Your task to perform on an android device: Go to calendar. Show me events next week Image 0: 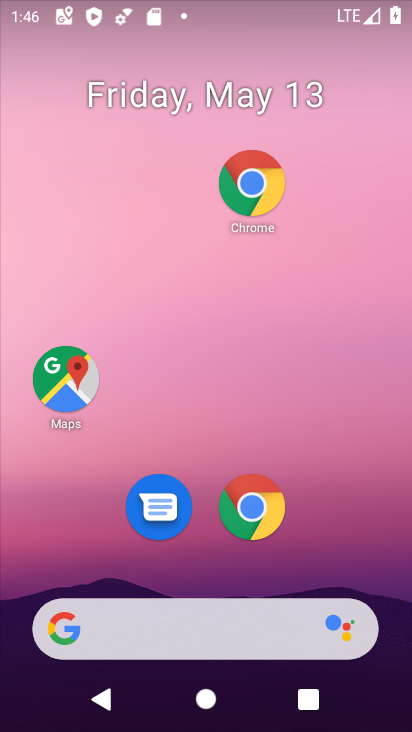
Step 0: click (272, 109)
Your task to perform on an android device: Go to calendar. Show me events next week Image 1: 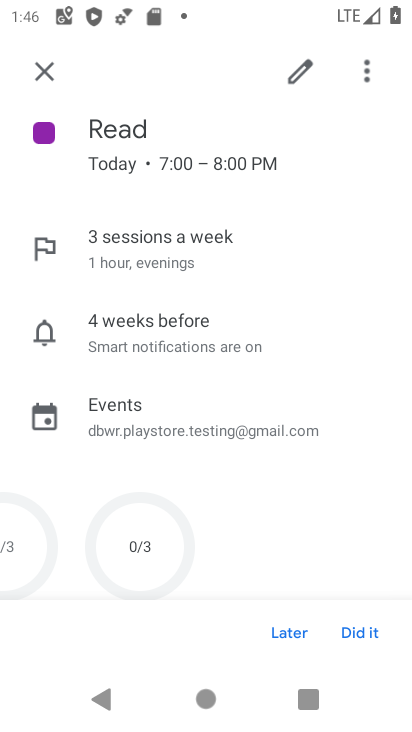
Step 1: click (39, 68)
Your task to perform on an android device: Go to calendar. Show me events next week Image 2: 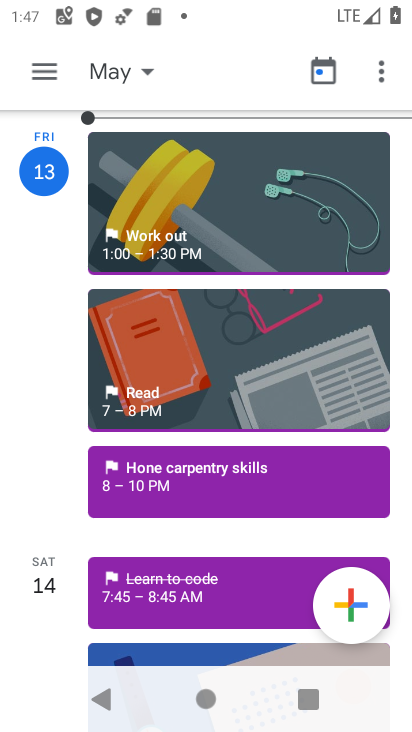
Step 2: click (186, 248)
Your task to perform on an android device: Go to calendar. Show me events next week Image 3: 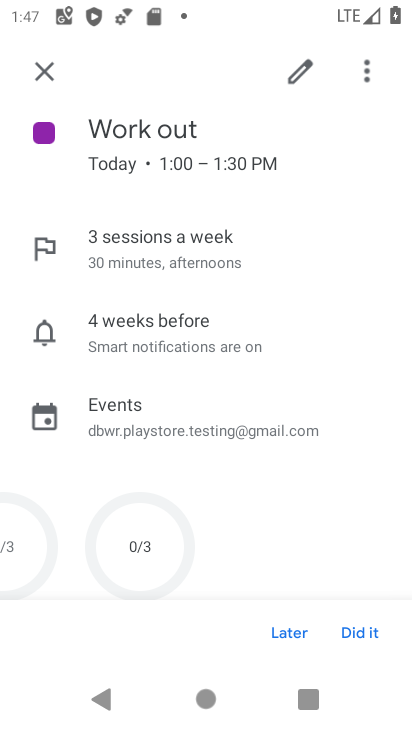
Step 3: task complete